Your task to perform on an android device: When is my next appointment? Image 0: 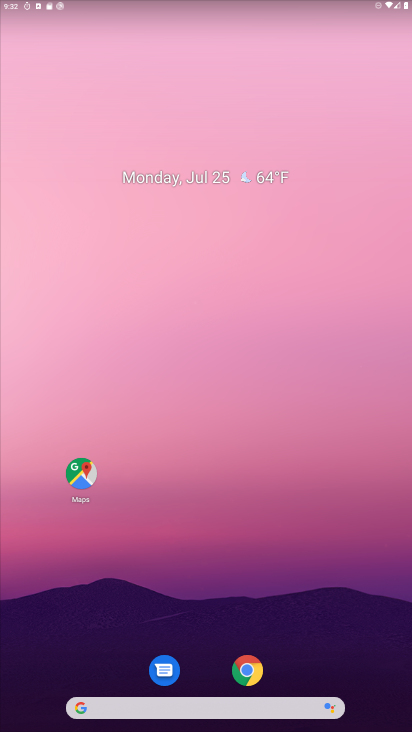
Step 0: drag from (362, 659) to (148, 14)
Your task to perform on an android device: When is my next appointment? Image 1: 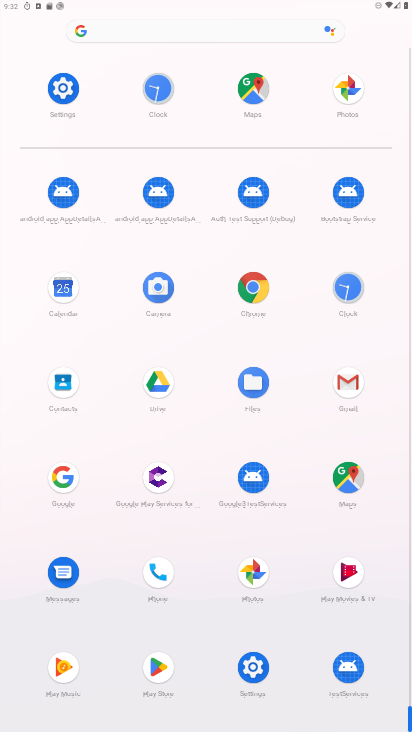
Step 1: click (56, 289)
Your task to perform on an android device: When is my next appointment? Image 2: 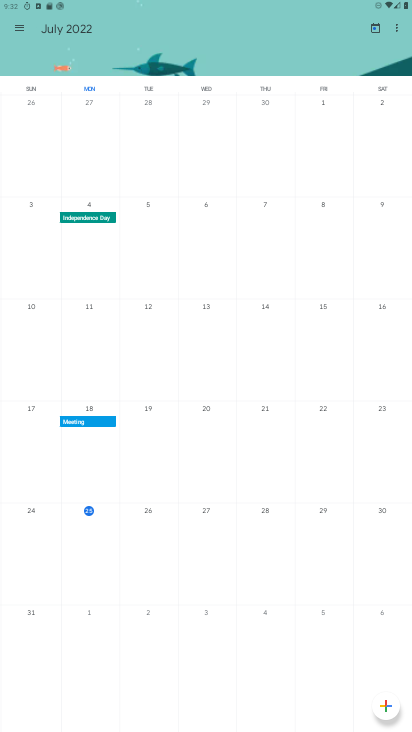
Step 2: task complete